Your task to perform on an android device: Go to calendar. Show me events next week Image 0: 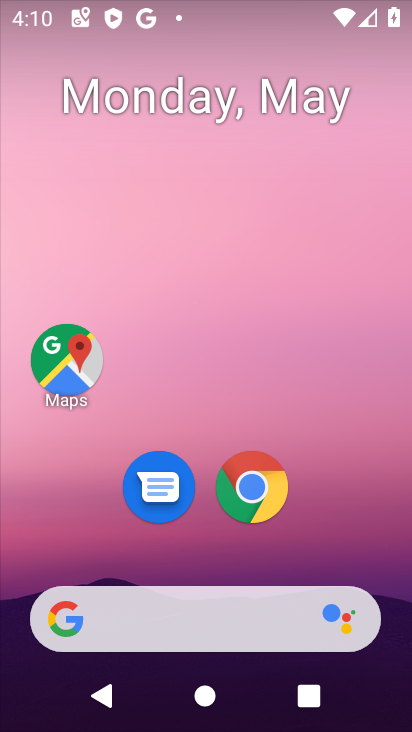
Step 0: drag from (352, 511) to (332, 2)
Your task to perform on an android device: Go to calendar. Show me events next week Image 1: 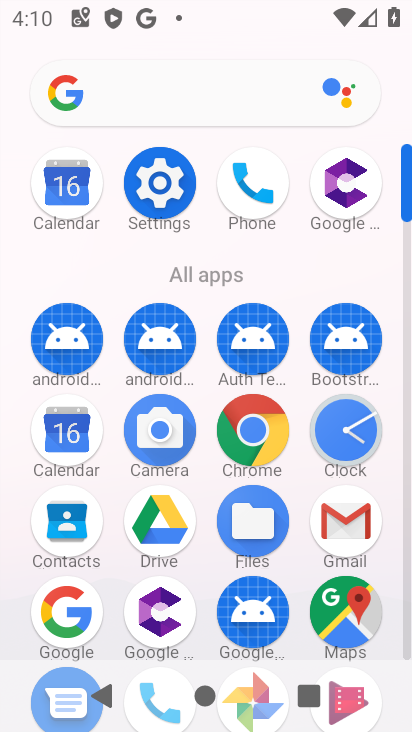
Step 1: click (68, 226)
Your task to perform on an android device: Go to calendar. Show me events next week Image 2: 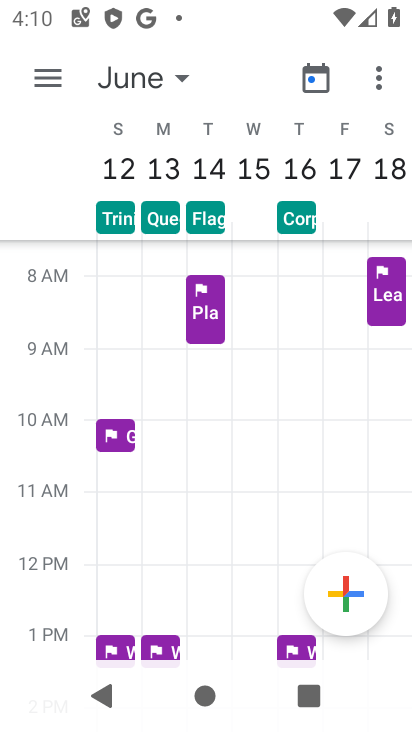
Step 2: click (314, 83)
Your task to perform on an android device: Go to calendar. Show me events next week Image 3: 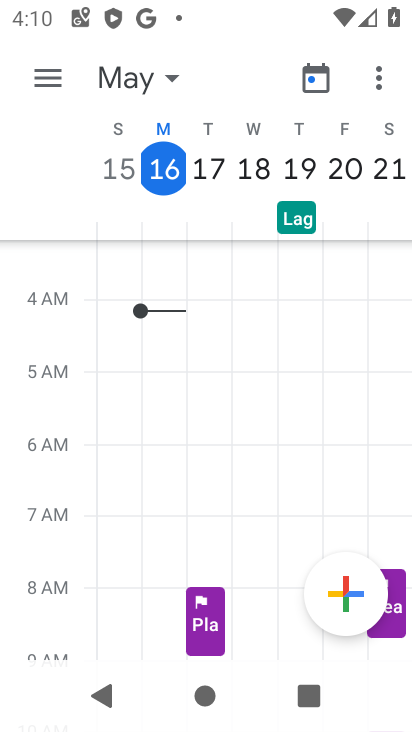
Step 3: drag from (336, 415) to (24, 428)
Your task to perform on an android device: Go to calendar. Show me events next week Image 4: 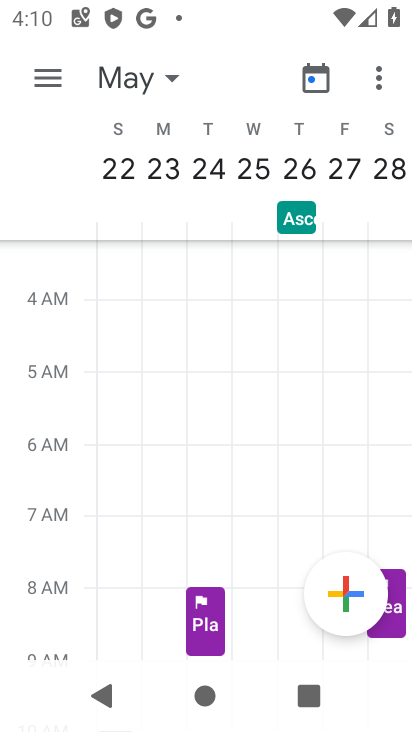
Step 4: click (40, 83)
Your task to perform on an android device: Go to calendar. Show me events next week Image 5: 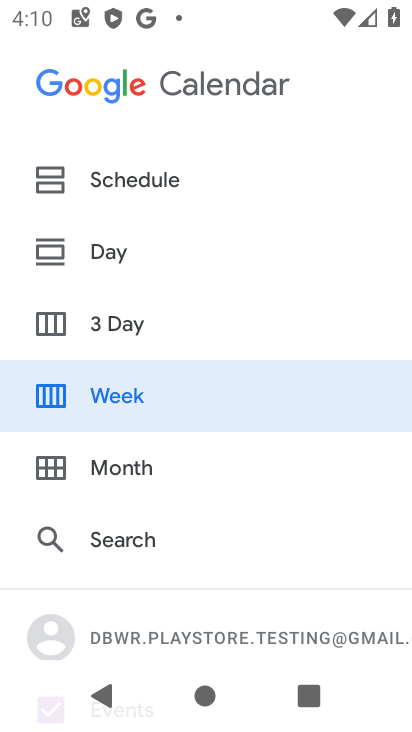
Step 5: drag from (167, 509) to (144, 162)
Your task to perform on an android device: Go to calendar. Show me events next week Image 6: 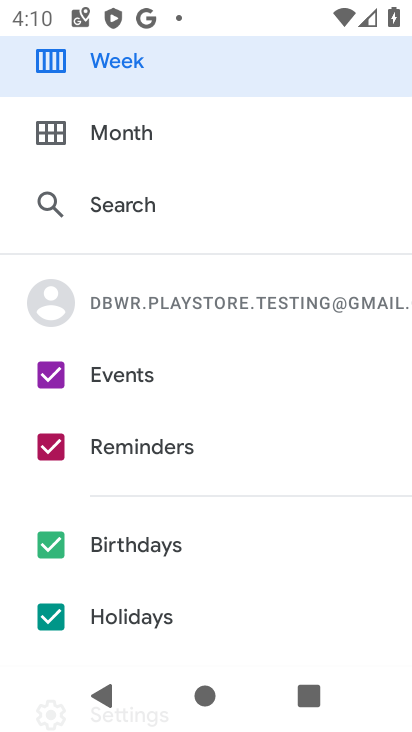
Step 6: click (48, 452)
Your task to perform on an android device: Go to calendar. Show me events next week Image 7: 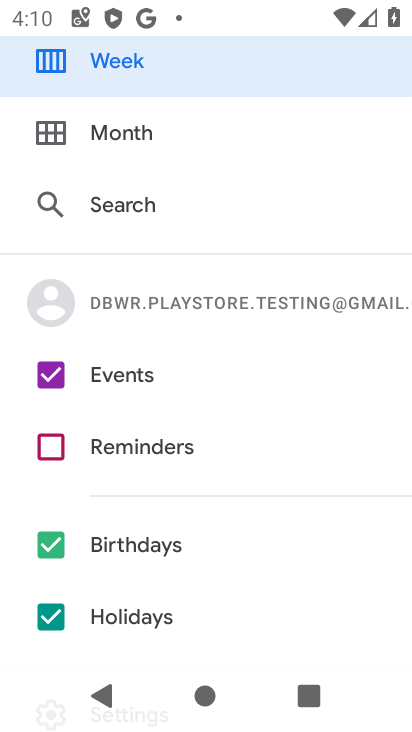
Step 7: click (46, 546)
Your task to perform on an android device: Go to calendar. Show me events next week Image 8: 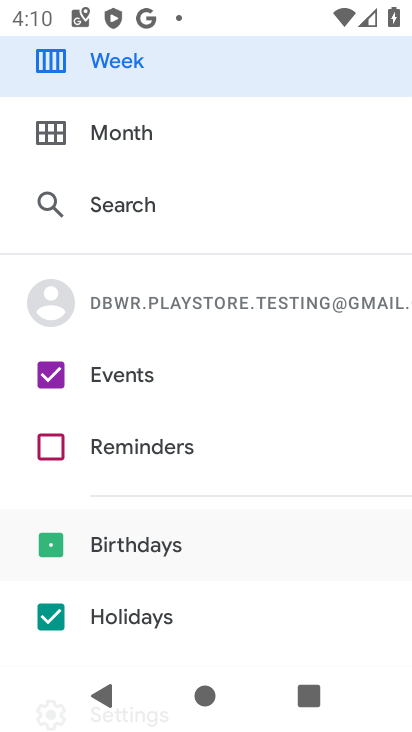
Step 8: click (44, 643)
Your task to perform on an android device: Go to calendar. Show me events next week Image 9: 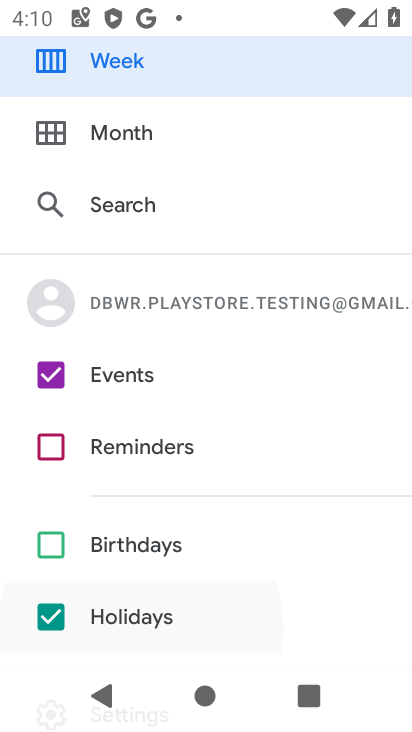
Step 9: click (44, 632)
Your task to perform on an android device: Go to calendar. Show me events next week Image 10: 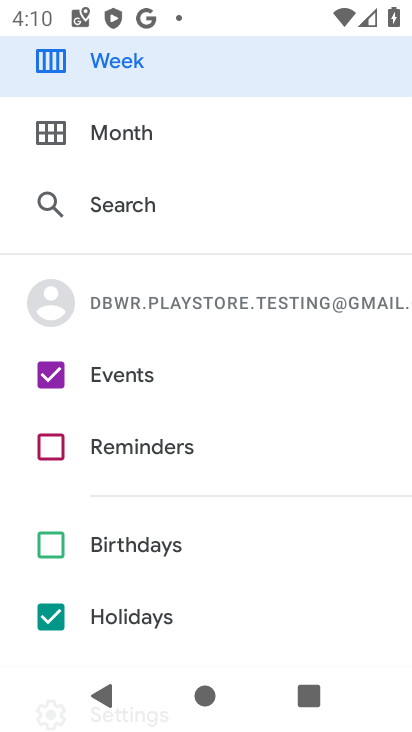
Step 10: click (52, 616)
Your task to perform on an android device: Go to calendar. Show me events next week Image 11: 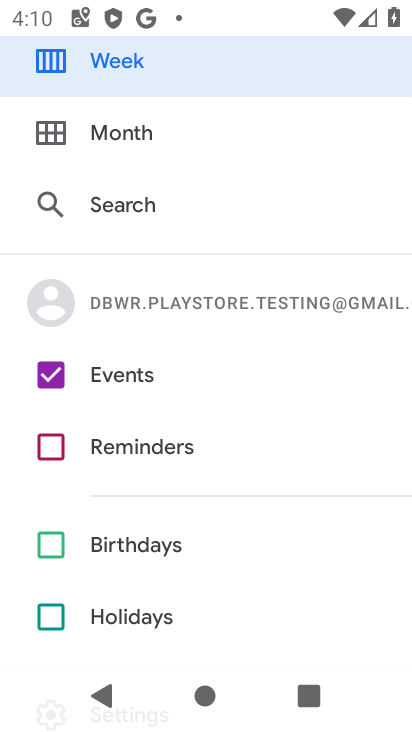
Step 11: click (68, 72)
Your task to perform on an android device: Go to calendar. Show me events next week Image 12: 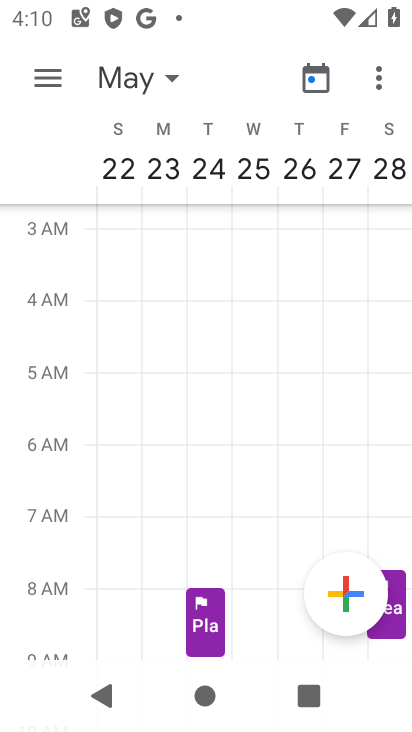
Step 12: task complete